Your task to perform on an android device: Open network settings Image 0: 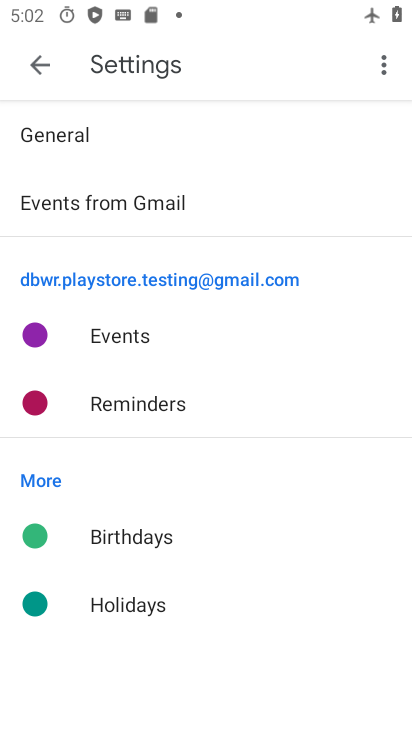
Step 0: press home button
Your task to perform on an android device: Open network settings Image 1: 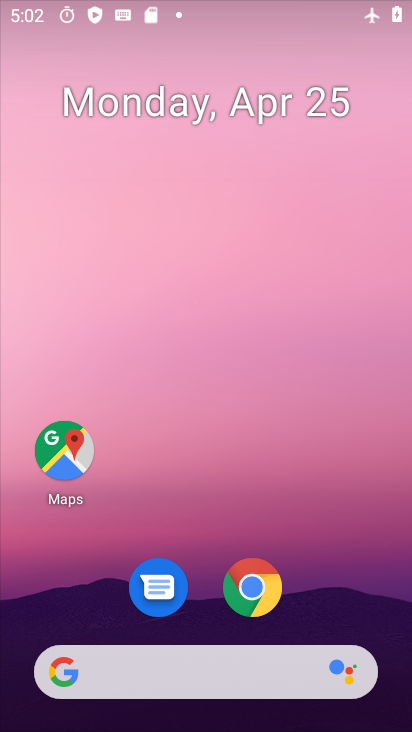
Step 1: drag from (339, 586) to (329, 89)
Your task to perform on an android device: Open network settings Image 2: 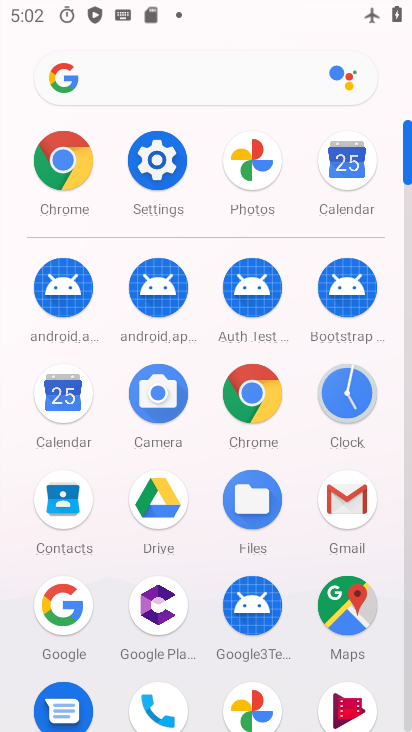
Step 2: click (173, 153)
Your task to perform on an android device: Open network settings Image 3: 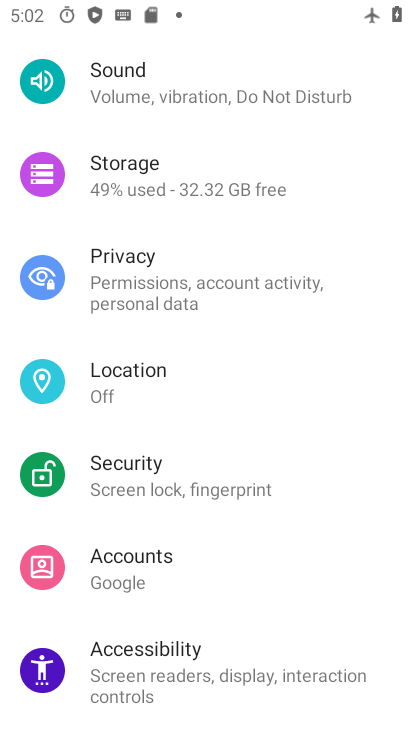
Step 3: drag from (244, 548) to (403, 202)
Your task to perform on an android device: Open network settings Image 4: 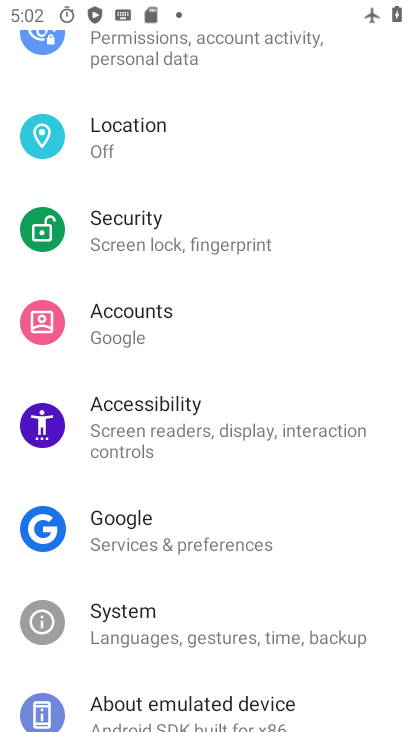
Step 4: drag from (175, 590) to (222, 254)
Your task to perform on an android device: Open network settings Image 5: 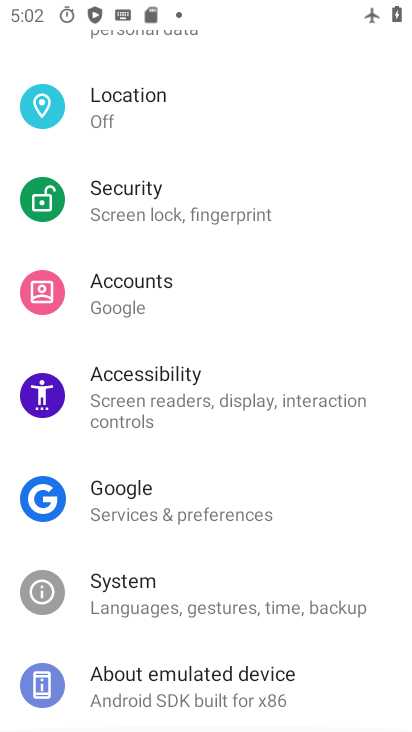
Step 5: drag from (191, 284) to (165, 713)
Your task to perform on an android device: Open network settings Image 6: 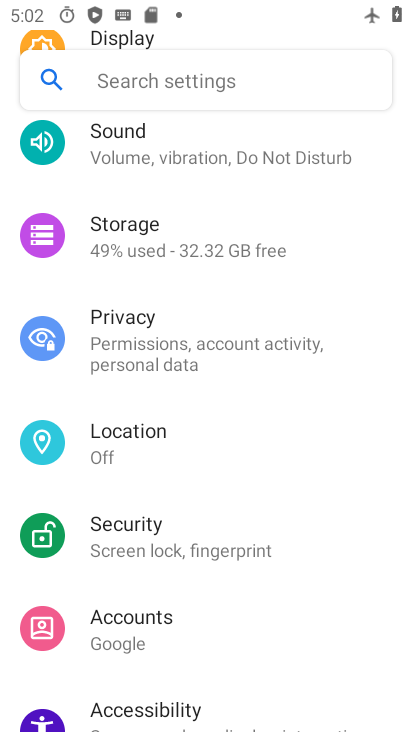
Step 6: drag from (199, 314) to (192, 696)
Your task to perform on an android device: Open network settings Image 7: 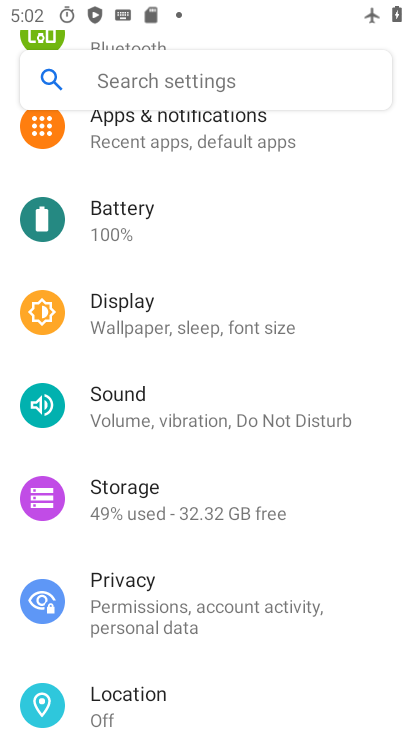
Step 7: drag from (238, 596) to (286, 281)
Your task to perform on an android device: Open network settings Image 8: 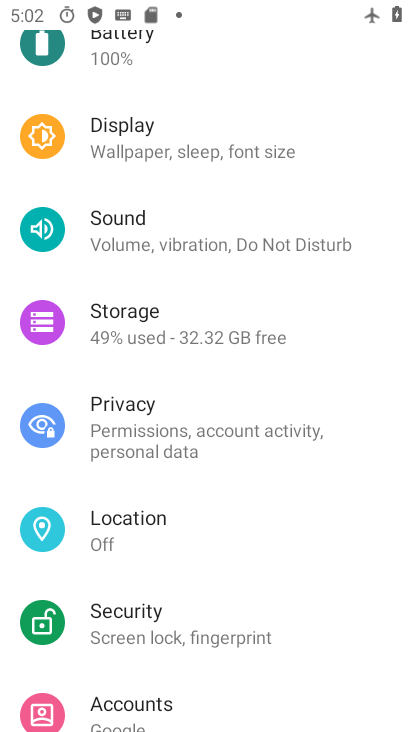
Step 8: drag from (137, 583) to (225, 252)
Your task to perform on an android device: Open network settings Image 9: 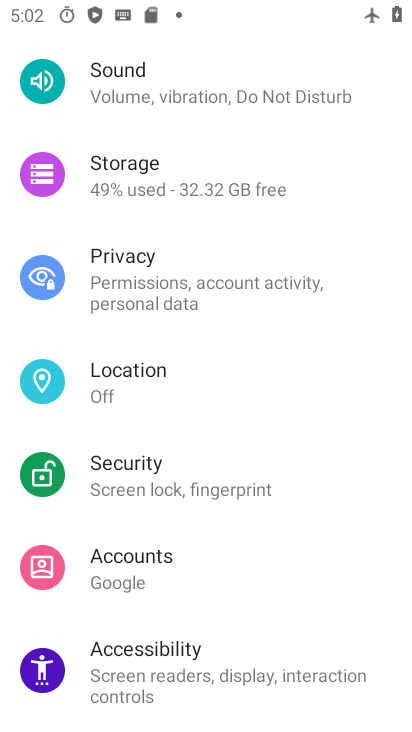
Step 9: drag from (222, 269) to (207, 728)
Your task to perform on an android device: Open network settings Image 10: 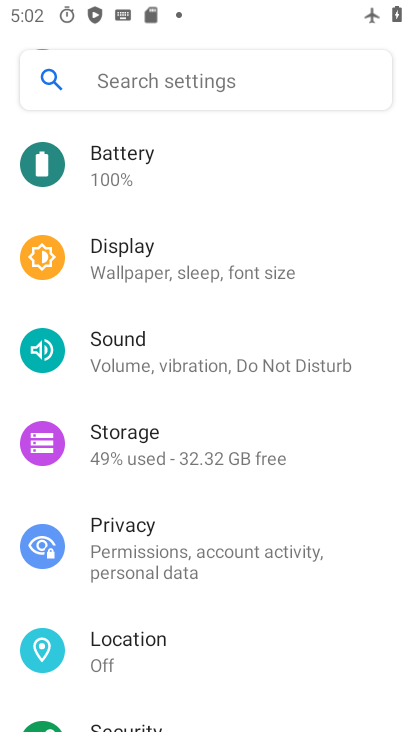
Step 10: drag from (255, 308) to (236, 708)
Your task to perform on an android device: Open network settings Image 11: 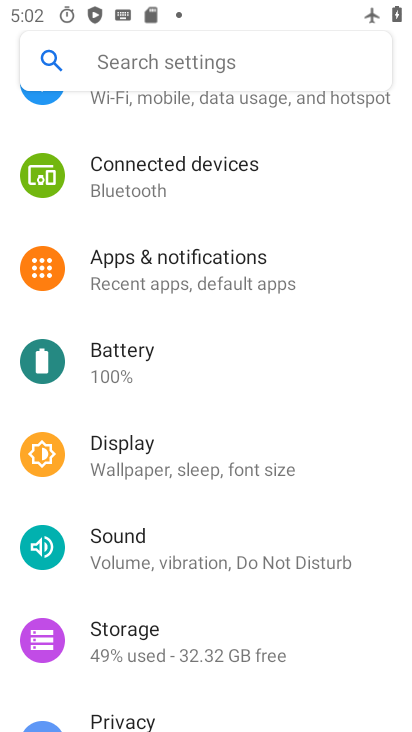
Step 11: drag from (273, 200) to (170, 731)
Your task to perform on an android device: Open network settings Image 12: 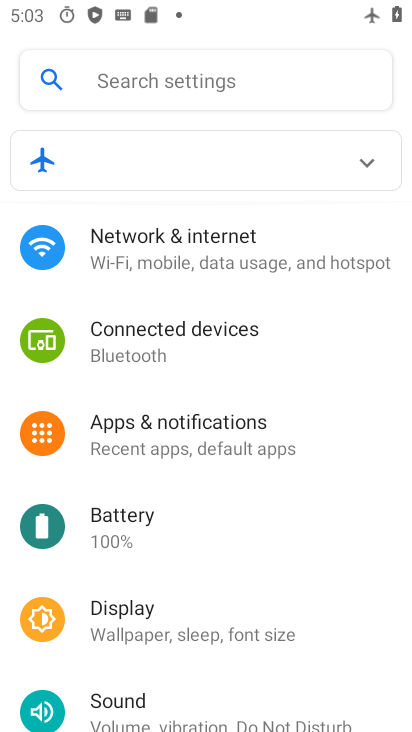
Step 12: click (199, 258)
Your task to perform on an android device: Open network settings Image 13: 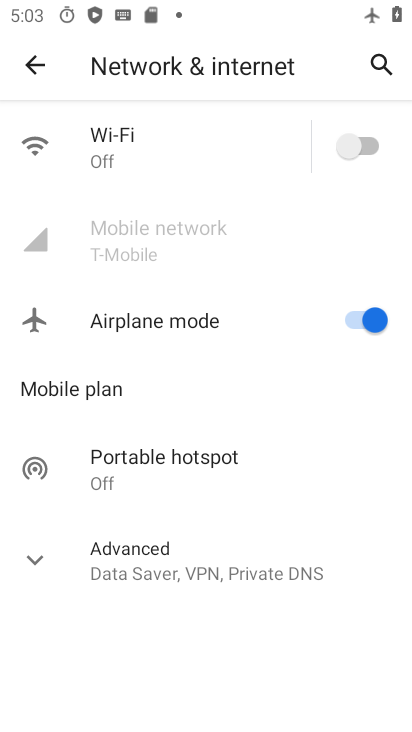
Step 13: click (196, 136)
Your task to perform on an android device: Open network settings Image 14: 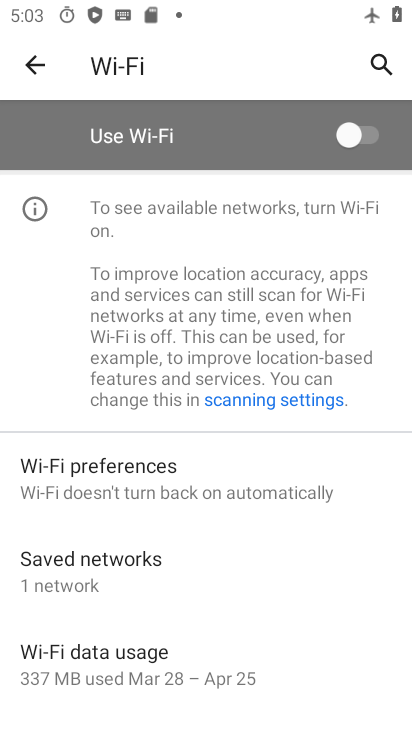
Step 14: task complete